Your task to perform on an android device: find snoozed emails in the gmail app Image 0: 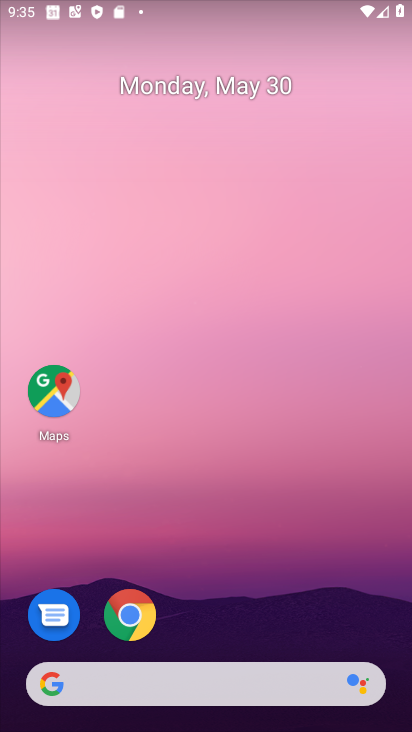
Step 0: drag from (308, 366) to (190, 12)
Your task to perform on an android device: find snoozed emails in the gmail app Image 1: 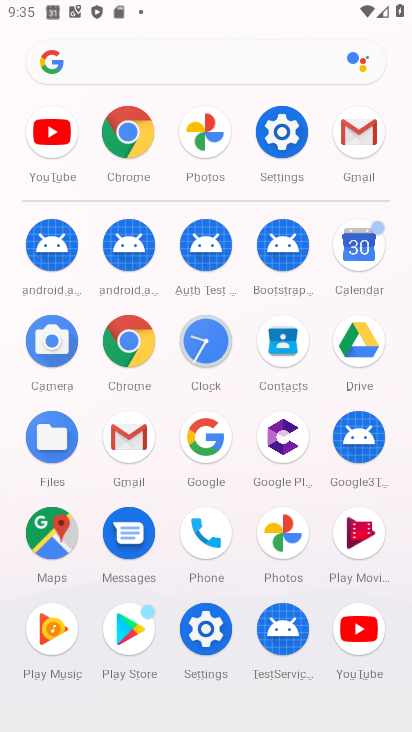
Step 1: click (140, 434)
Your task to perform on an android device: find snoozed emails in the gmail app Image 2: 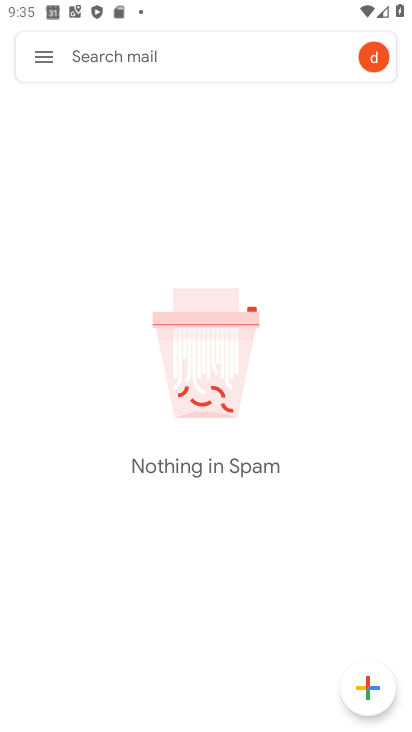
Step 2: click (30, 53)
Your task to perform on an android device: find snoozed emails in the gmail app Image 3: 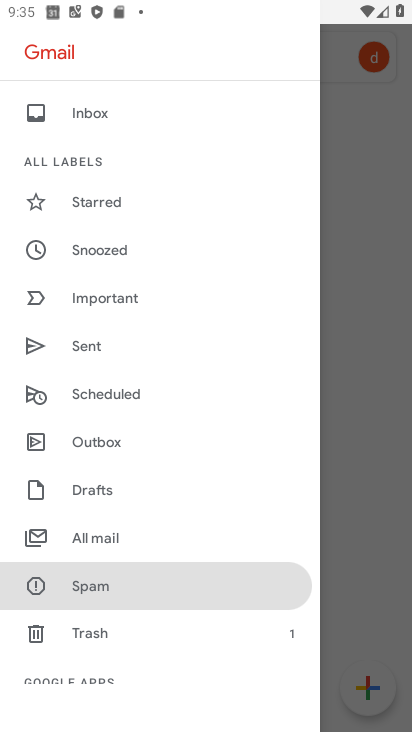
Step 3: click (144, 246)
Your task to perform on an android device: find snoozed emails in the gmail app Image 4: 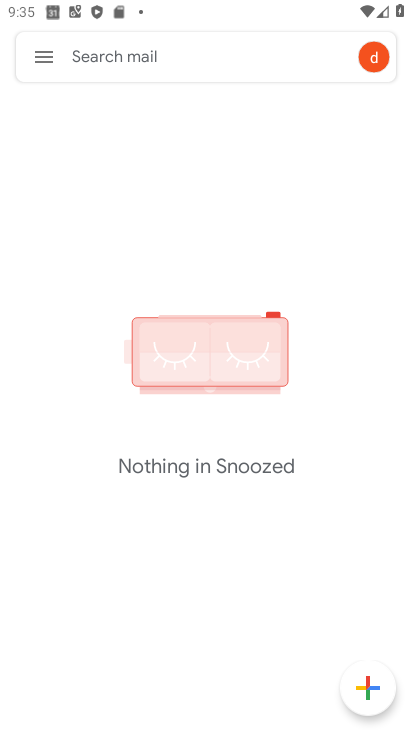
Step 4: task complete